Your task to perform on an android device: Is it going to rain today? Image 0: 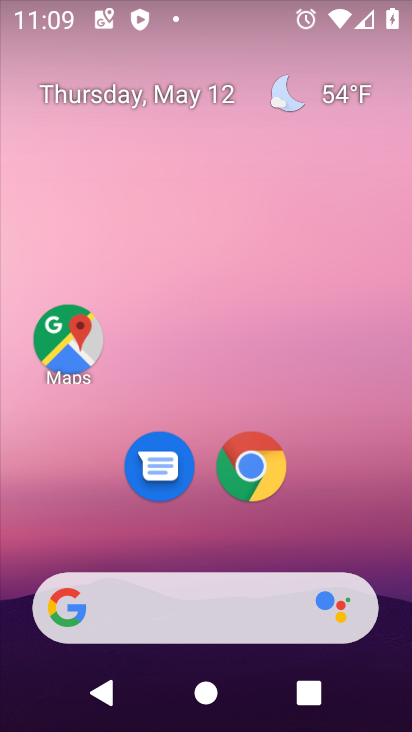
Step 0: drag from (372, 545) to (353, 141)
Your task to perform on an android device: Is it going to rain today? Image 1: 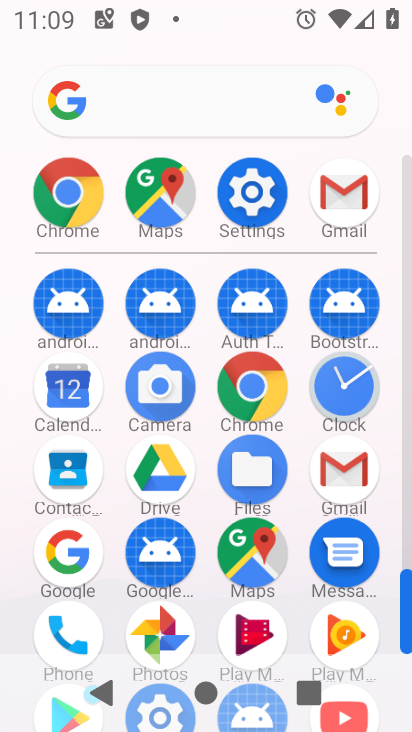
Step 1: click (234, 377)
Your task to perform on an android device: Is it going to rain today? Image 2: 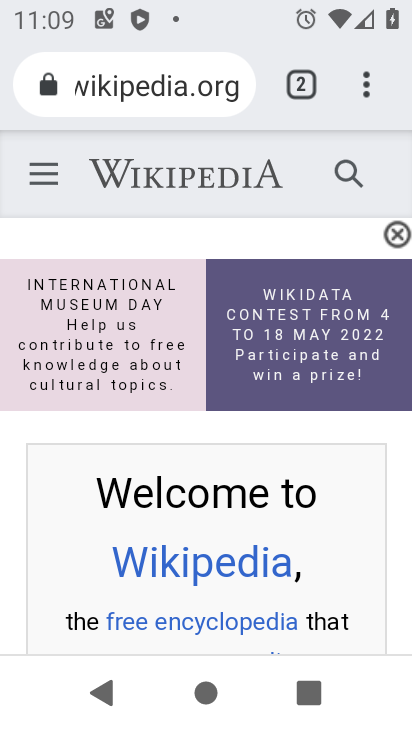
Step 2: click (189, 81)
Your task to perform on an android device: Is it going to rain today? Image 3: 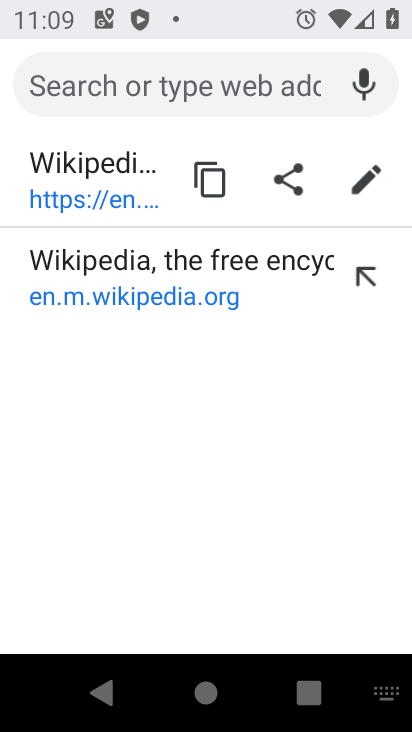
Step 3: type "is it going to rain today"
Your task to perform on an android device: Is it going to rain today? Image 4: 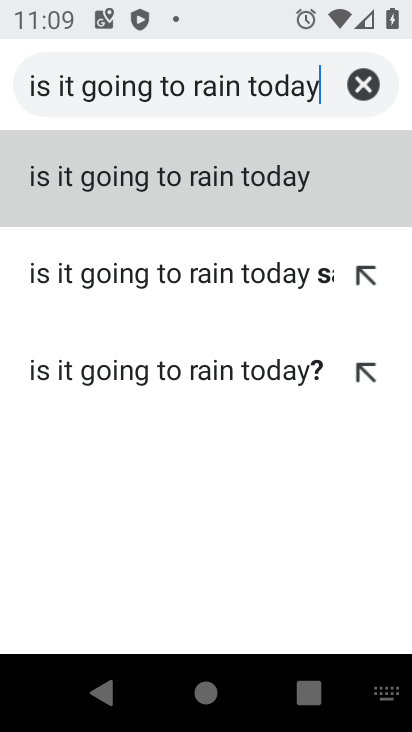
Step 4: click (173, 170)
Your task to perform on an android device: Is it going to rain today? Image 5: 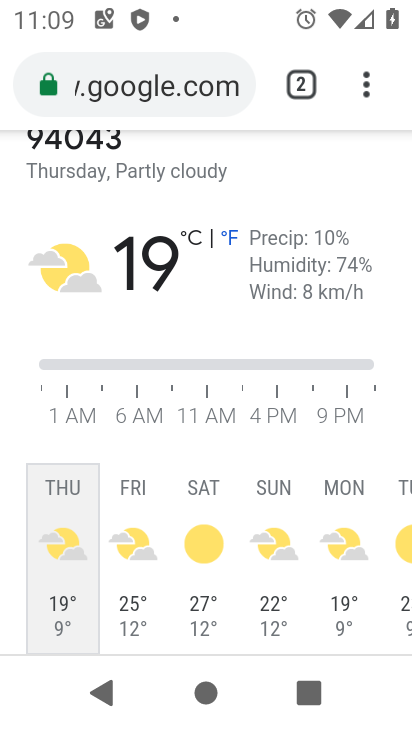
Step 5: task complete